Your task to perform on an android device: Open Chrome and go to the settings page Image 0: 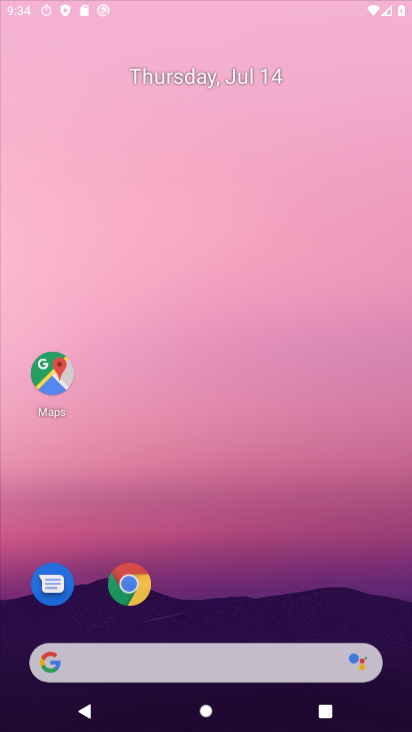
Step 0: click (188, 466)
Your task to perform on an android device: Open Chrome and go to the settings page Image 1: 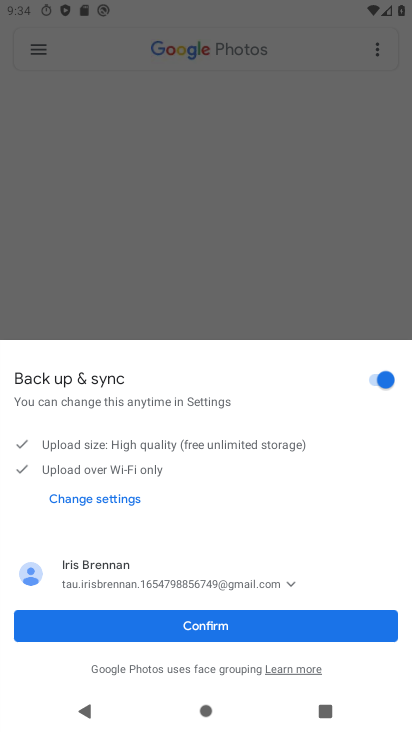
Step 1: press home button
Your task to perform on an android device: Open Chrome and go to the settings page Image 2: 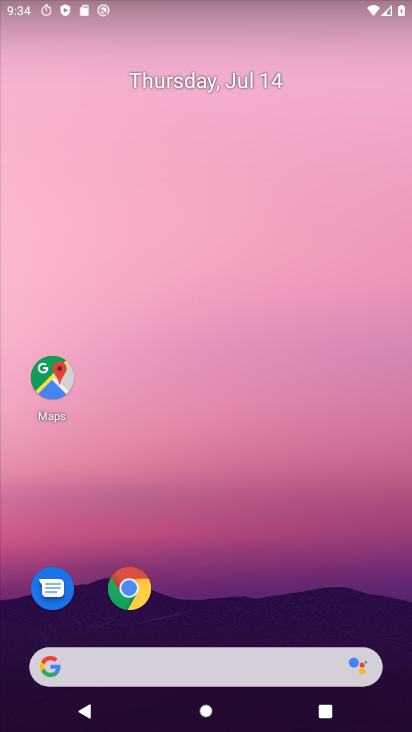
Step 2: click (108, 579)
Your task to perform on an android device: Open Chrome and go to the settings page Image 3: 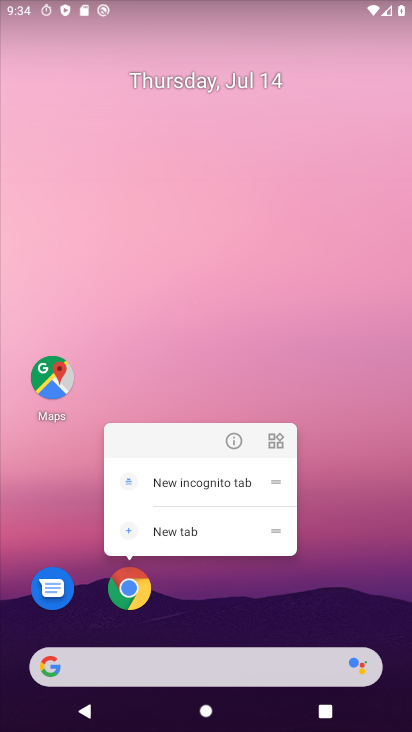
Step 3: click (108, 579)
Your task to perform on an android device: Open Chrome and go to the settings page Image 4: 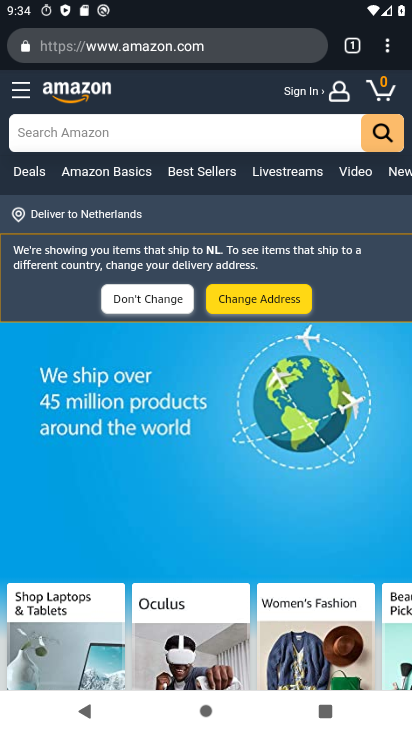
Step 4: click (394, 54)
Your task to perform on an android device: Open Chrome and go to the settings page Image 5: 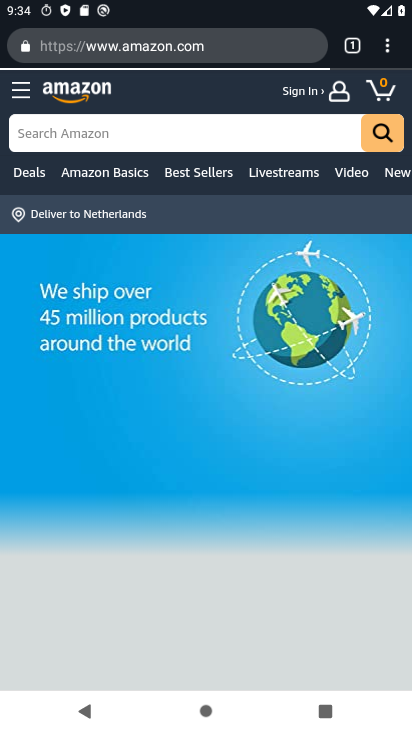
Step 5: click (387, 50)
Your task to perform on an android device: Open Chrome and go to the settings page Image 6: 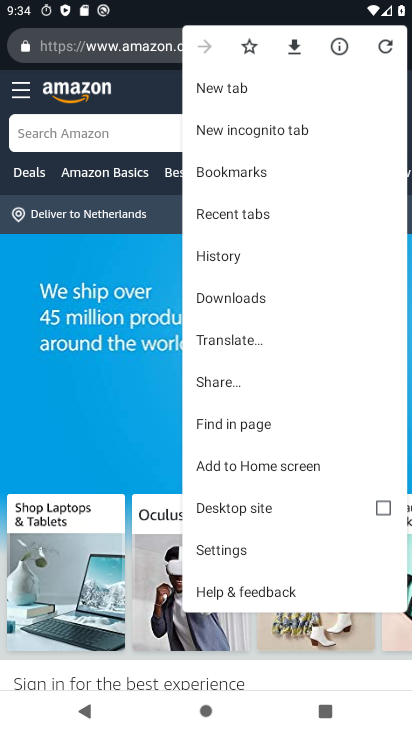
Step 6: click (225, 542)
Your task to perform on an android device: Open Chrome and go to the settings page Image 7: 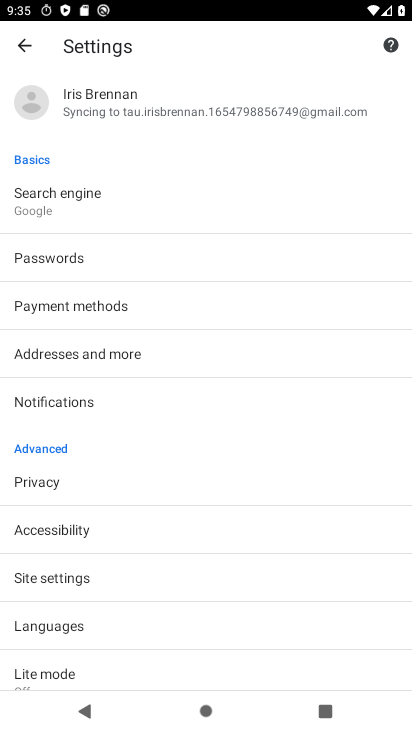
Step 7: task complete